Your task to perform on an android device: open sync settings in chrome Image 0: 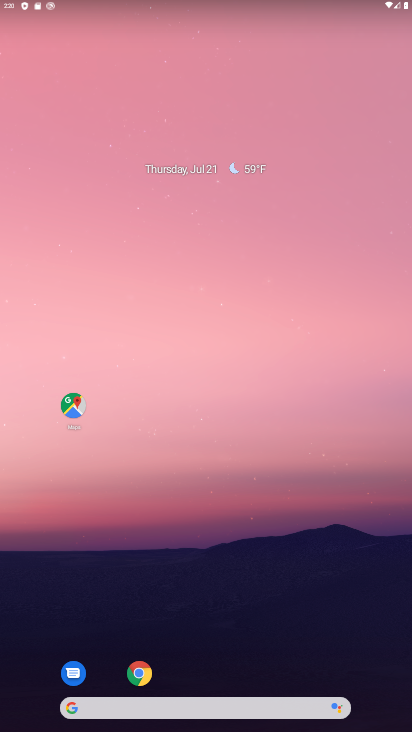
Step 0: click (140, 674)
Your task to perform on an android device: open sync settings in chrome Image 1: 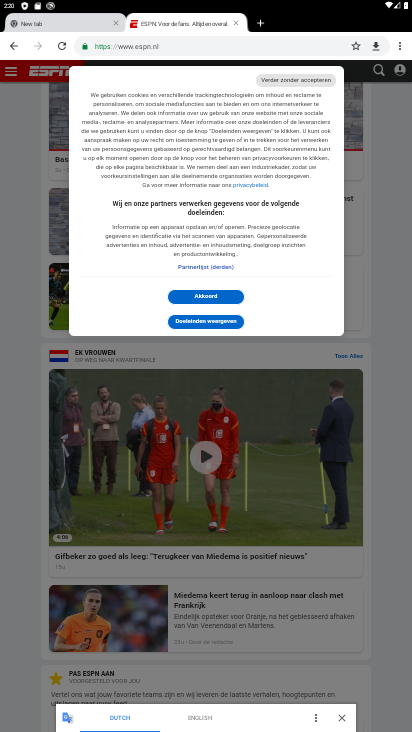
Step 1: click (401, 47)
Your task to perform on an android device: open sync settings in chrome Image 2: 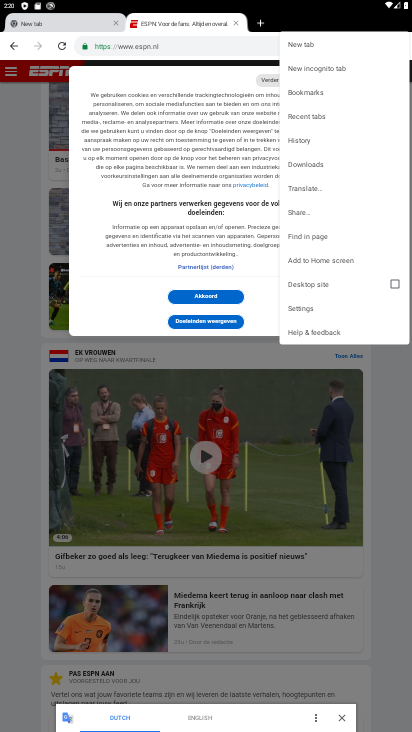
Step 2: click (302, 302)
Your task to perform on an android device: open sync settings in chrome Image 3: 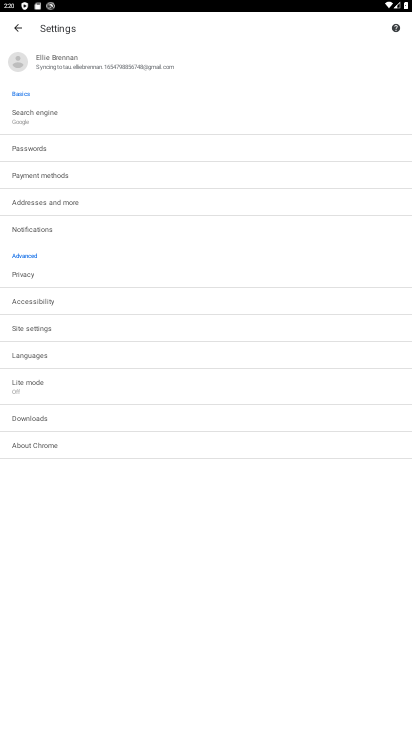
Step 3: click (65, 60)
Your task to perform on an android device: open sync settings in chrome Image 4: 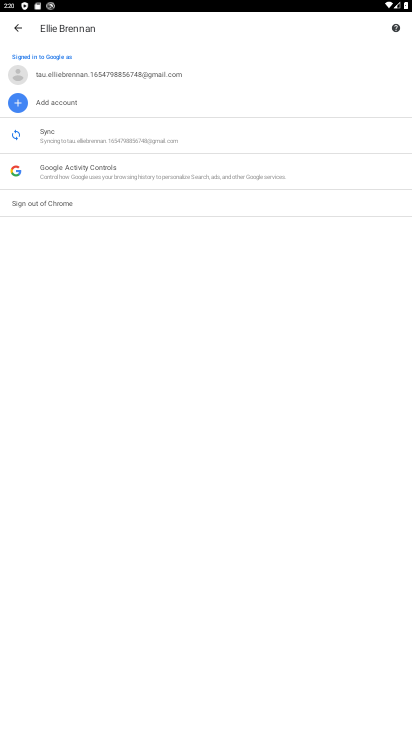
Step 4: click (52, 132)
Your task to perform on an android device: open sync settings in chrome Image 5: 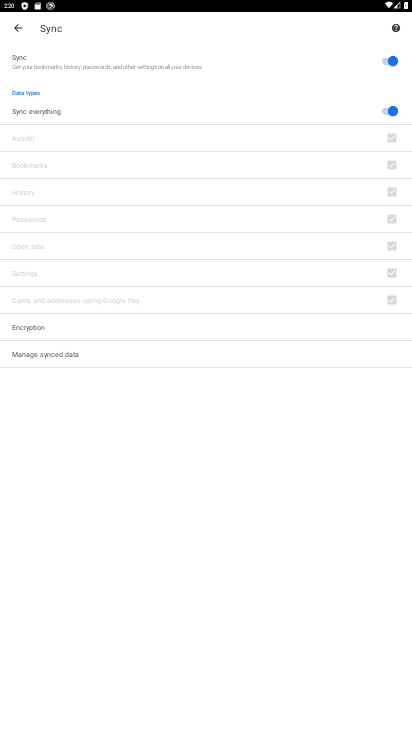
Step 5: task complete